Your task to perform on an android device: Check the weather Image 0: 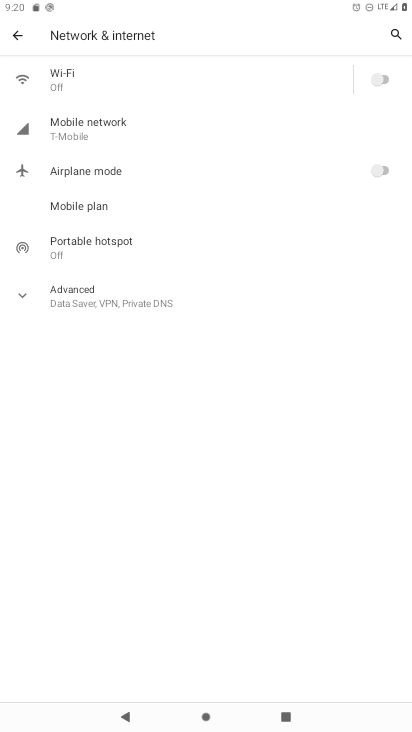
Step 0: press home button
Your task to perform on an android device: Check the weather Image 1: 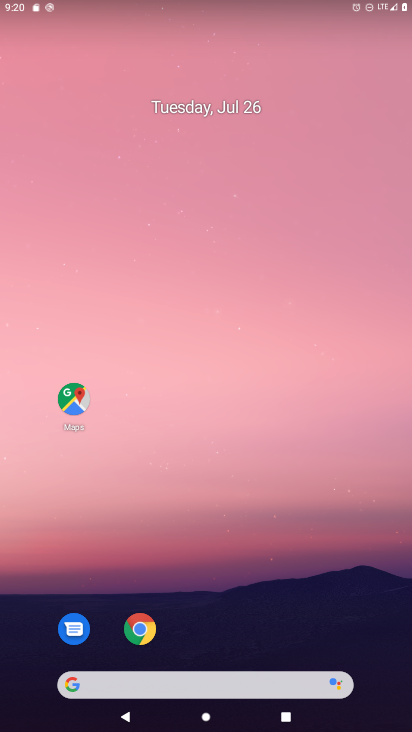
Step 1: click (216, 681)
Your task to perform on an android device: Check the weather Image 2: 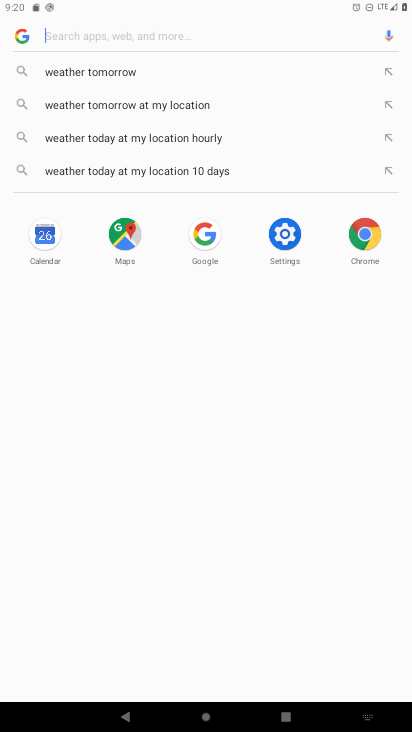
Step 2: type " weather"
Your task to perform on an android device: Check the weather Image 3: 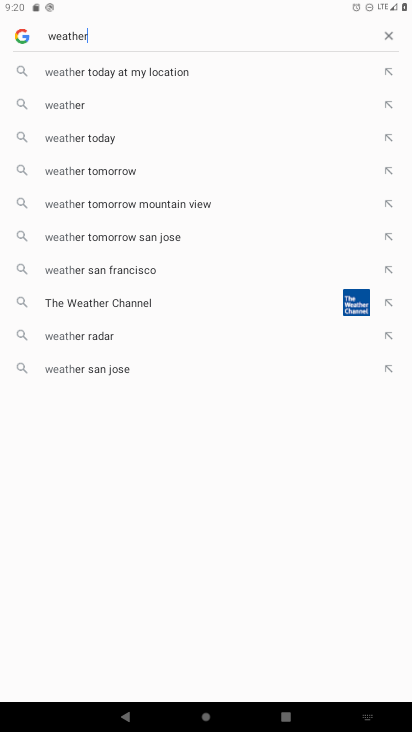
Step 3: type ""
Your task to perform on an android device: Check the weather Image 4: 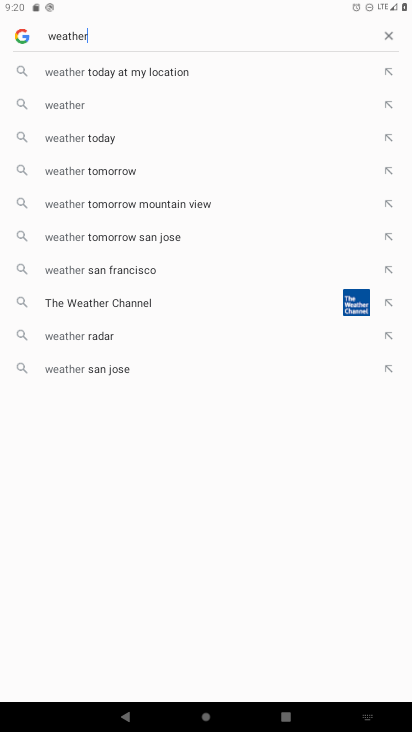
Step 4: click (76, 99)
Your task to perform on an android device: Check the weather Image 5: 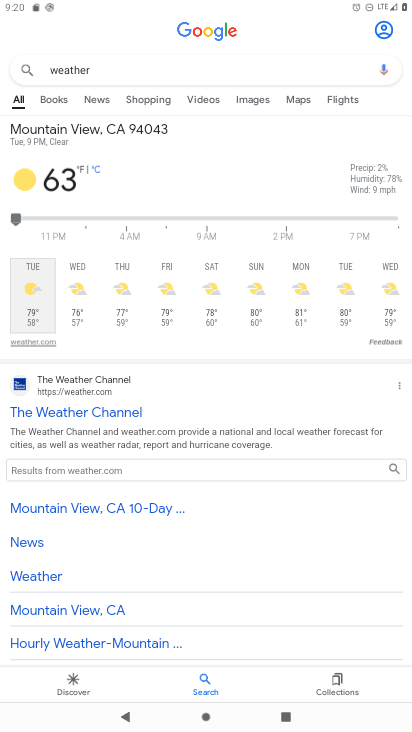
Step 5: task complete